Your task to perform on an android device: Is it going to rain this weekend? Image 0: 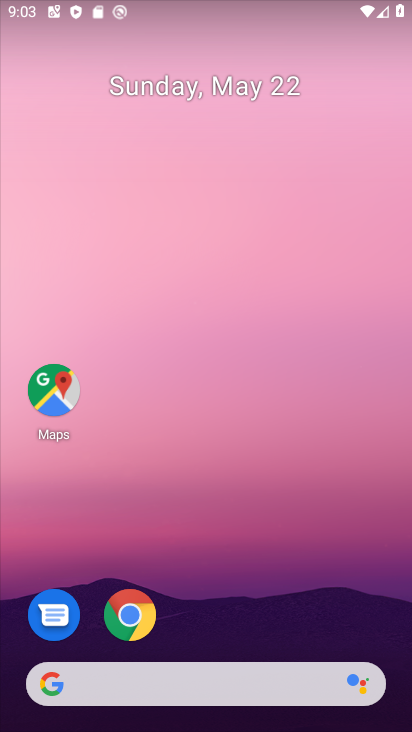
Step 0: drag from (178, 573) to (196, 289)
Your task to perform on an android device: Is it going to rain this weekend? Image 1: 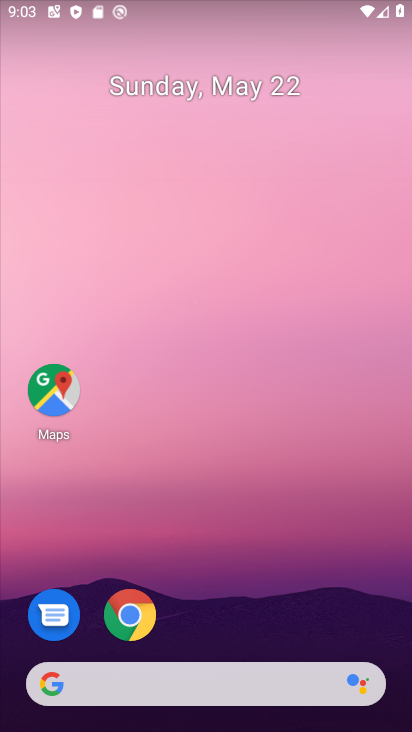
Step 1: drag from (228, 558) to (284, 302)
Your task to perform on an android device: Is it going to rain this weekend? Image 2: 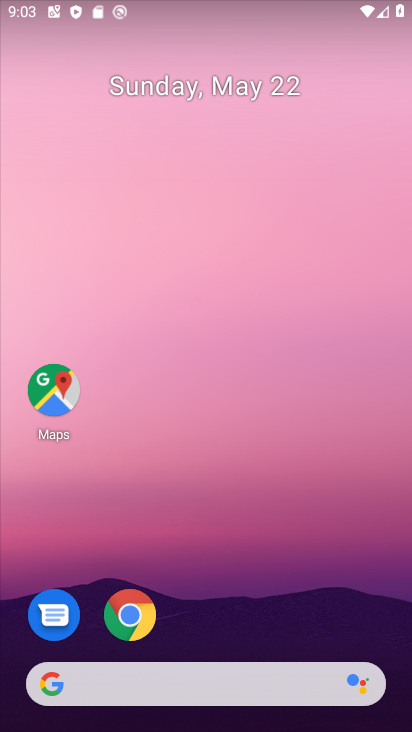
Step 2: drag from (217, 618) to (275, 245)
Your task to perform on an android device: Is it going to rain this weekend? Image 3: 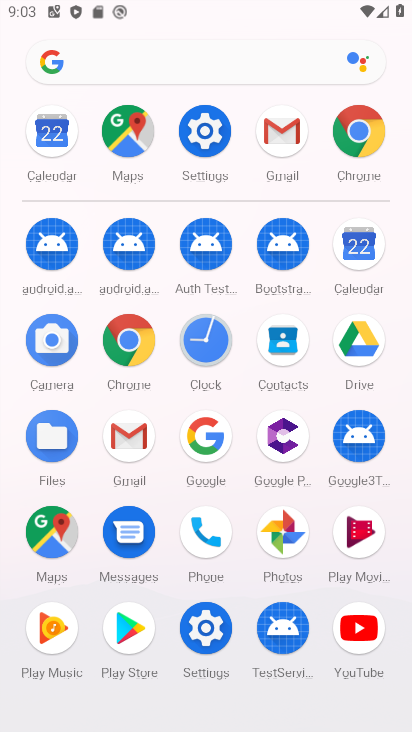
Step 3: click (373, 121)
Your task to perform on an android device: Is it going to rain this weekend? Image 4: 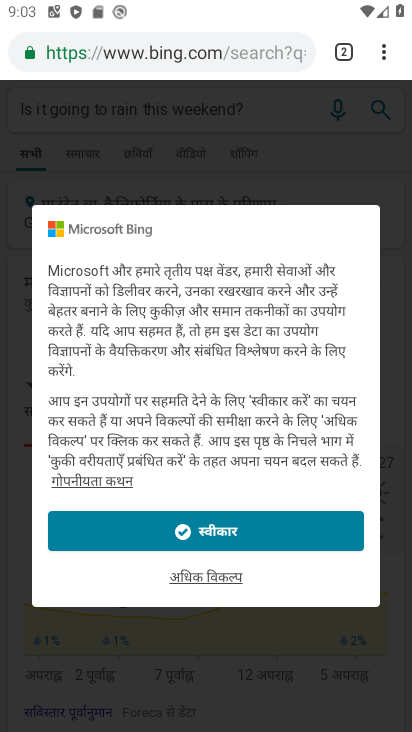
Step 4: click (387, 60)
Your task to perform on an android device: Is it going to rain this weekend? Image 5: 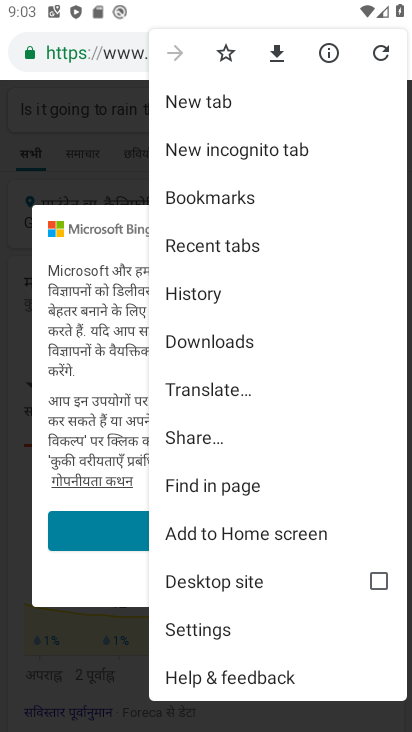
Step 5: click (223, 105)
Your task to perform on an android device: Is it going to rain this weekend? Image 6: 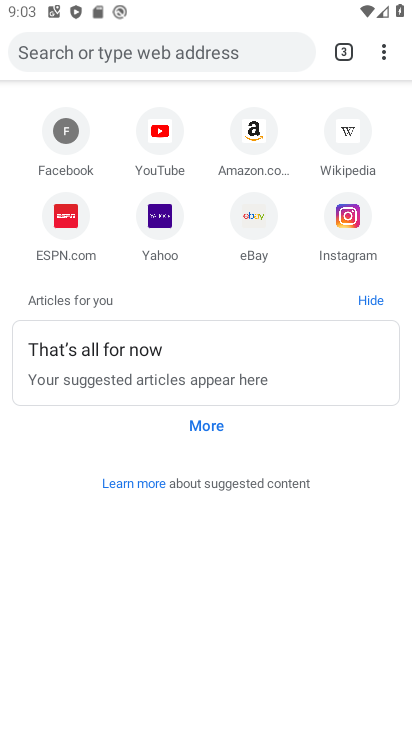
Step 6: click (206, 50)
Your task to perform on an android device: Is it going to rain this weekend? Image 7: 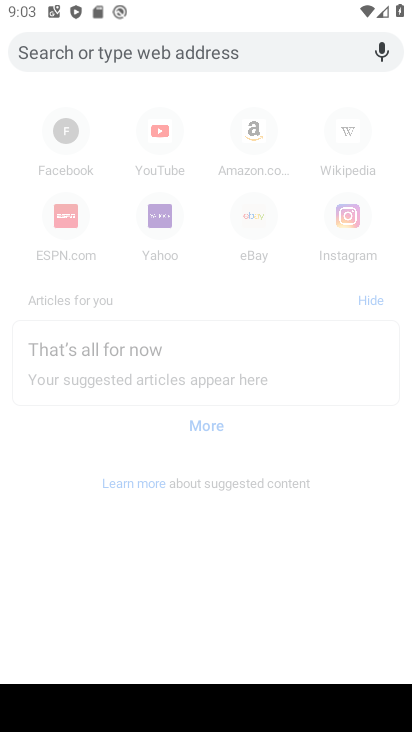
Step 7: type "Is it going to rain this weekend?"
Your task to perform on an android device: Is it going to rain this weekend? Image 8: 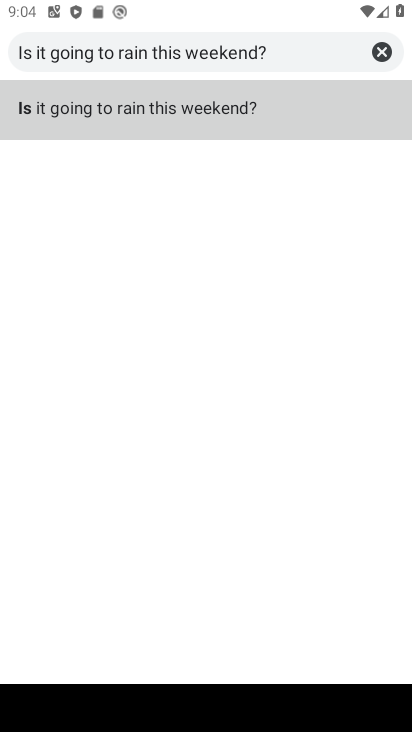
Step 8: click (327, 107)
Your task to perform on an android device: Is it going to rain this weekend? Image 9: 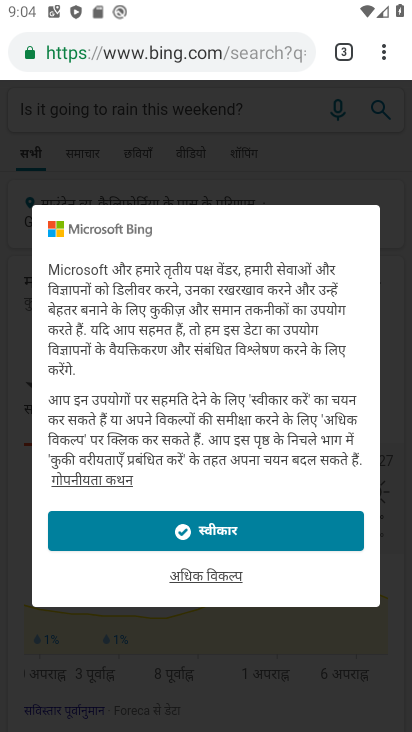
Step 9: task complete